Your task to perform on an android device: When is my next meeting? Image 0: 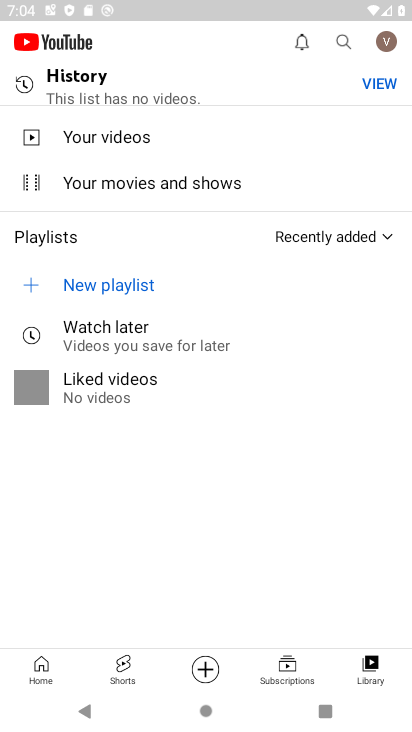
Step 0: press home button
Your task to perform on an android device: When is my next meeting? Image 1: 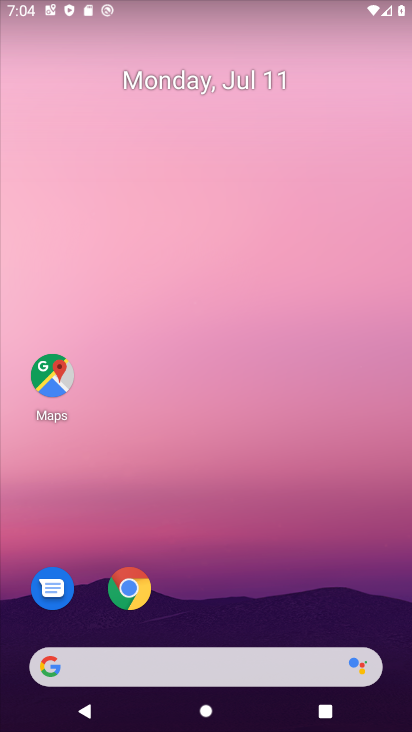
Step 1: drag from (381, 621) to (207, 14)
Your task to perform on an android device: When is my next meeting? Image 2: 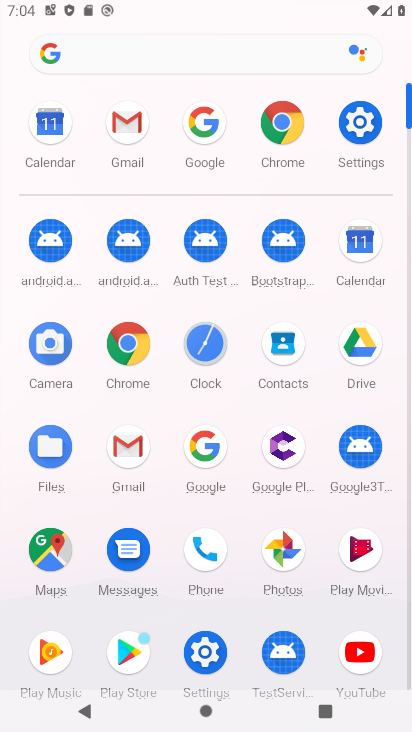
Step 2: click (363, 247)
Your task to perform on an android device: When is my next meeting? Image 3: 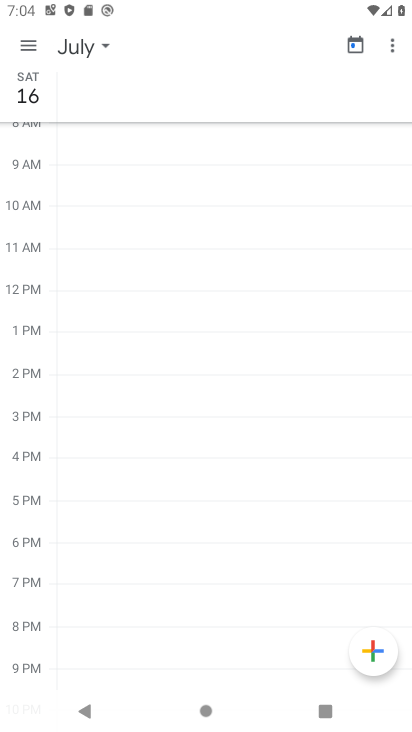
Step 3: click (23, 39)
Your task to perform on an android device: When is my next meeting? Image 4: 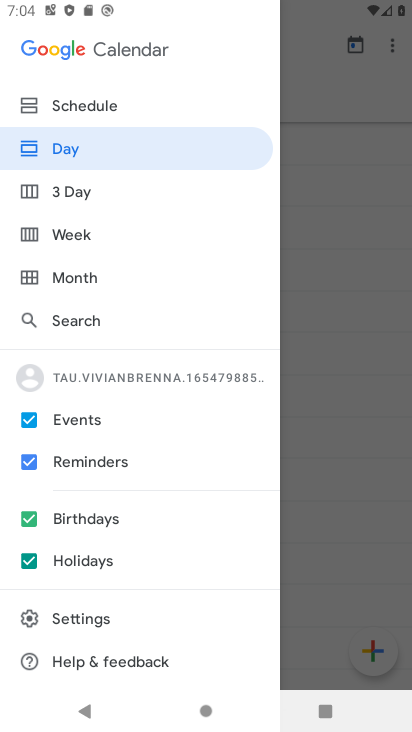
Step 4: task complete